Your task to perform on an android device: What's the weather? Image 0: 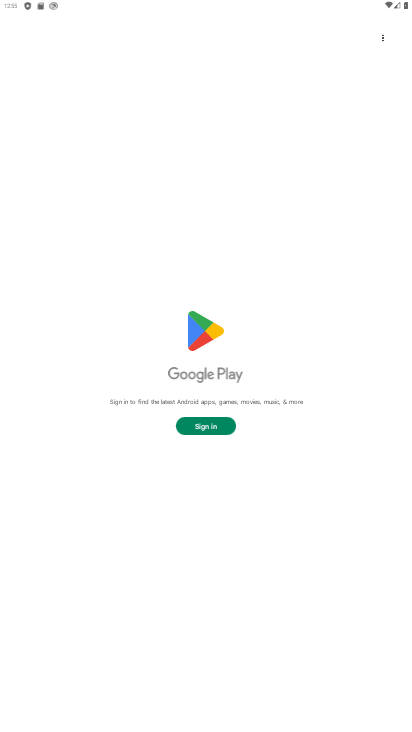
Step 0: press home button
Your task to perform on an android device: What's the weather? Image 1: 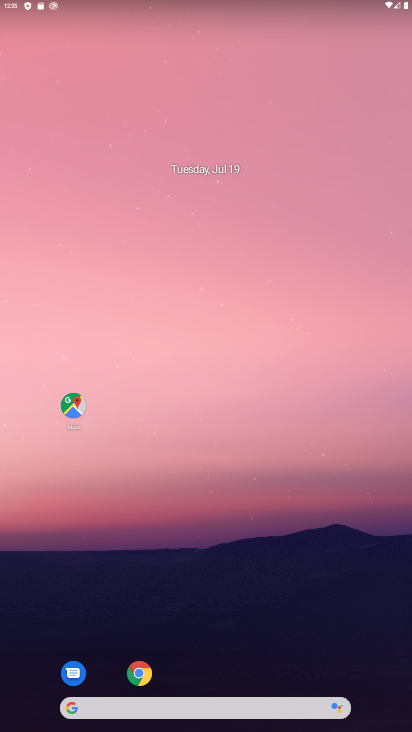
Step 1: click (210, 707)
Your task to perform on an android device: What's the weather? Image 2: 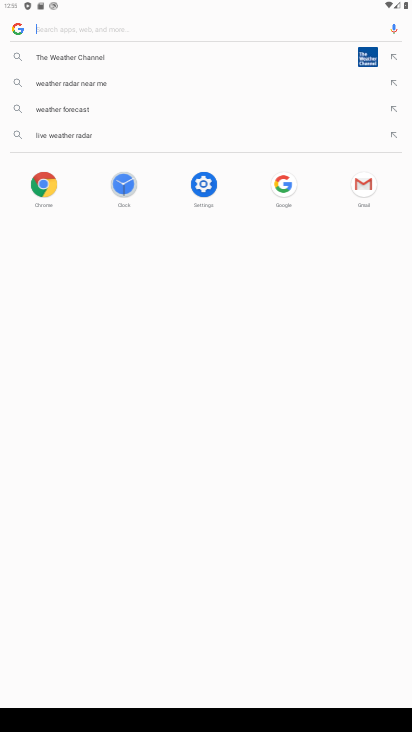
Step 2: type "weather?"
Your task to perform on an android device: What's the weather? Image 3: 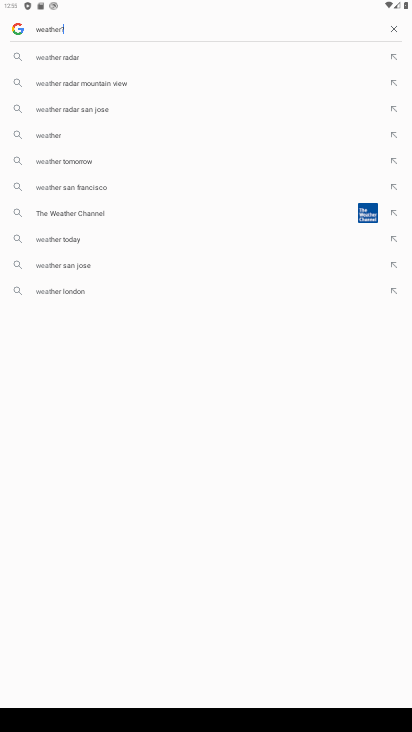
Step 3: type ""
Your task to perform on an android device: What's the weather? Image 4: 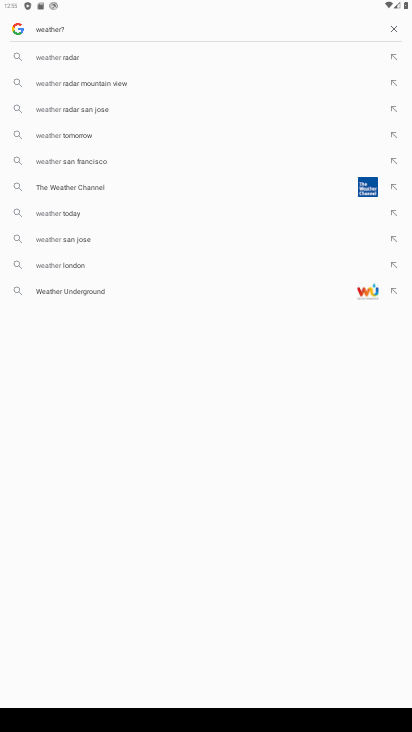
Step 4: click (67, 208)
Your task to perform on an android device: What's the weather? Image 5: 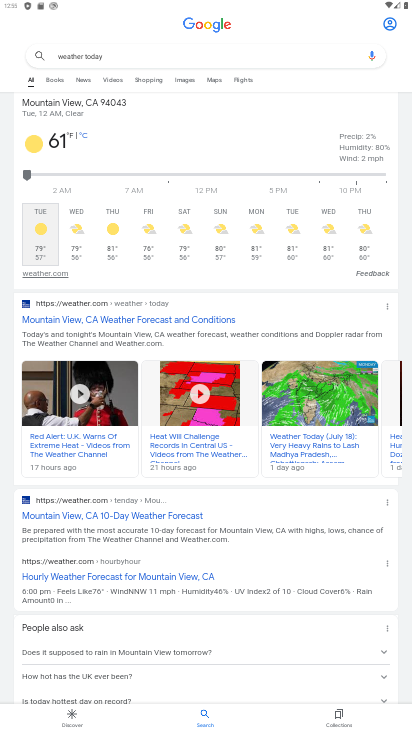
Step 5: task complete